Your task to perform on an android device: Open calendar and show me the fourth week of next month Image 0: 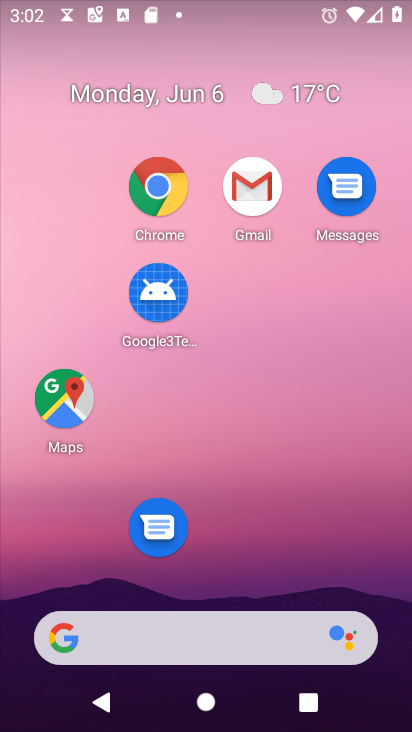
Step 0: drag from (273, 503) to (271, 129)
Your task to perform on an android device: Open calendar and show me the fourth week of next month Image 1: 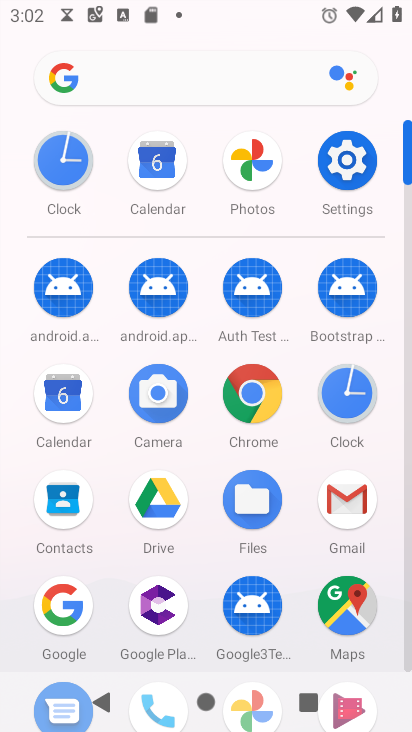
Step 1: click (155, 162)
Your task to perform on an android device: Open calendar and show me the fourth week of next month Image 2: 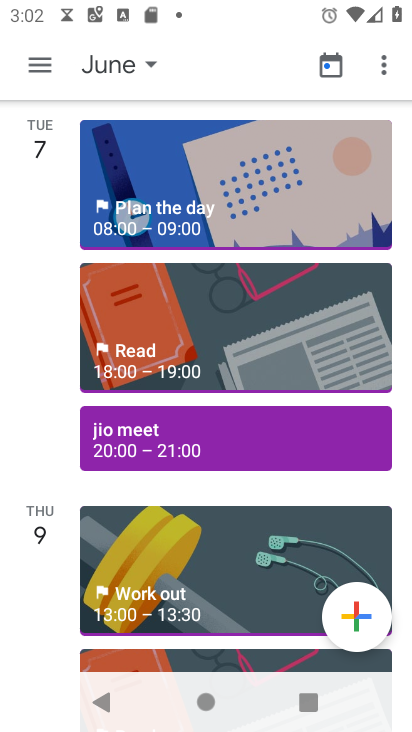
Step 2: click (37, 70)
Your task to perform on an android device: Open calendar and show me the fourth week of next month Image 3: 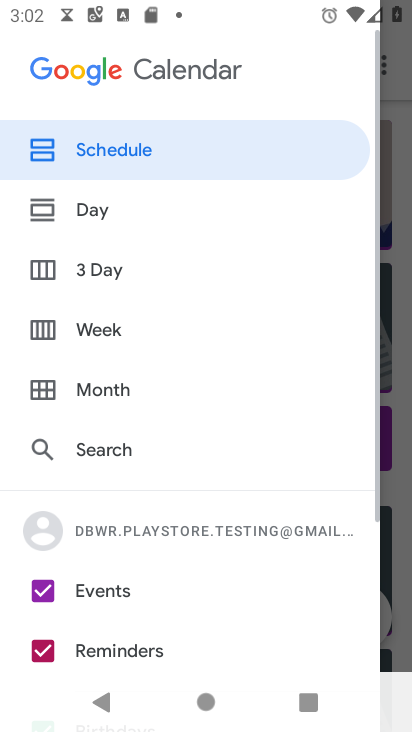
Step 3: click (99, 390)
Your task to perform on an android device: Open calendar and show me the fourth week of next month Image 4: 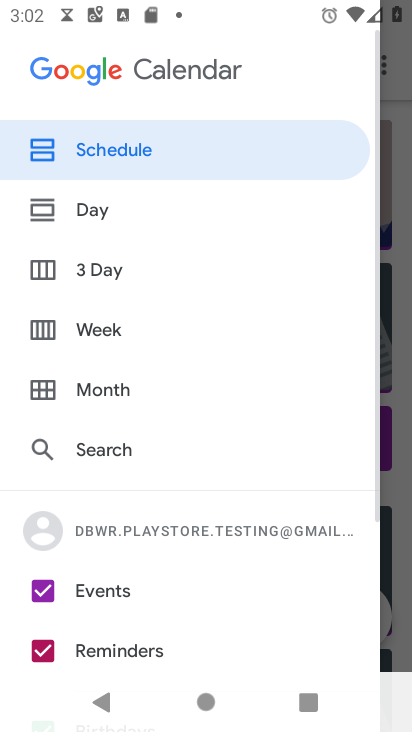
Step 4: click (99, 390)
Your task to perform on an android device: Open calendar and show me the fourth week of next month Image 5: 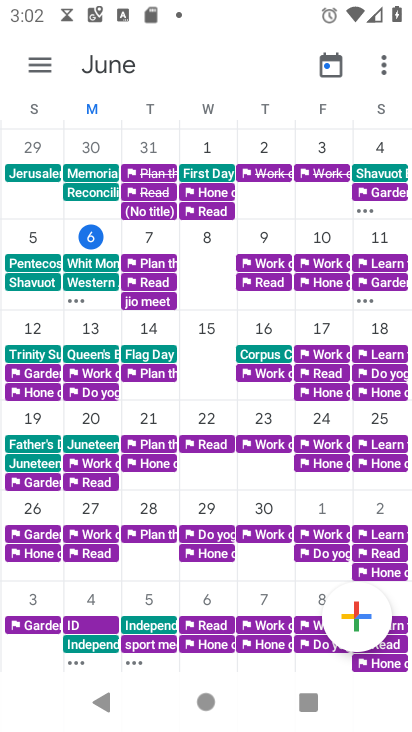
Step 5: drag from (399, 301) to (62, 384)
Your task to perform on an android device: Open calendar and show me the fourth week of next month Image 6: 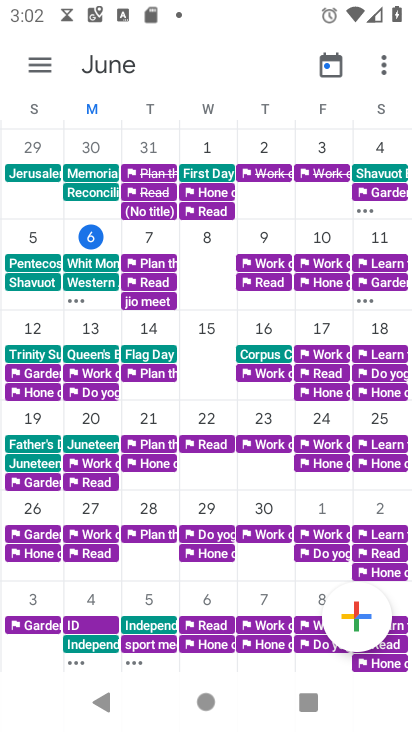
Step 6: drag from (356, 373) to (117, 400)
Your task to perform on an android device: Open calendar and show me the fourth week of next month Image 7: 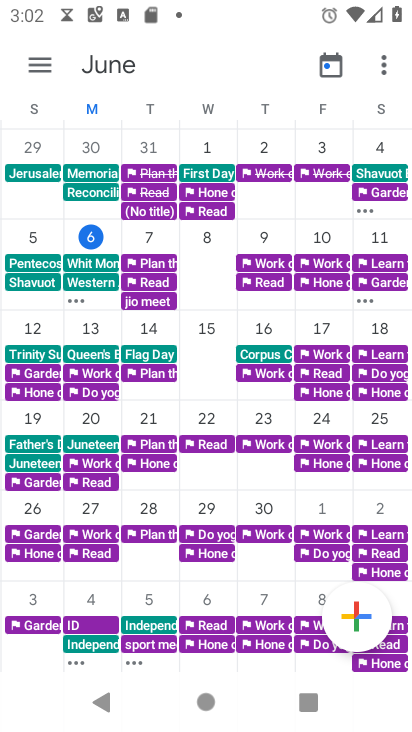
Step 7: drag from (275, 543) to (214, 242)
Your task to perform on an android device: Open calendar and show me the fourth week of next month Image 8: 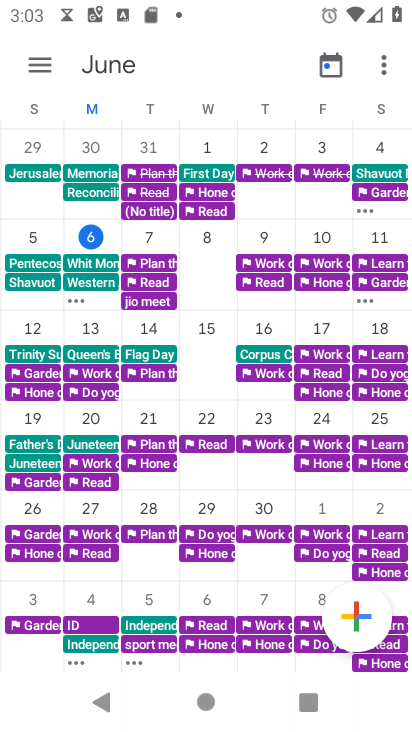
Step 8: click (39, 522)
Your task to perform on an android device: Open calendar and show me the fourth week of next month Image 9: 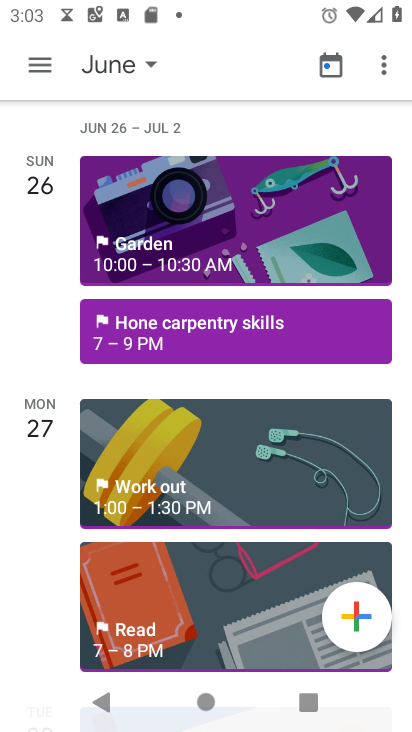
Step 9: task complete